Your task to perform on an android device: Open Amazon Image 0: 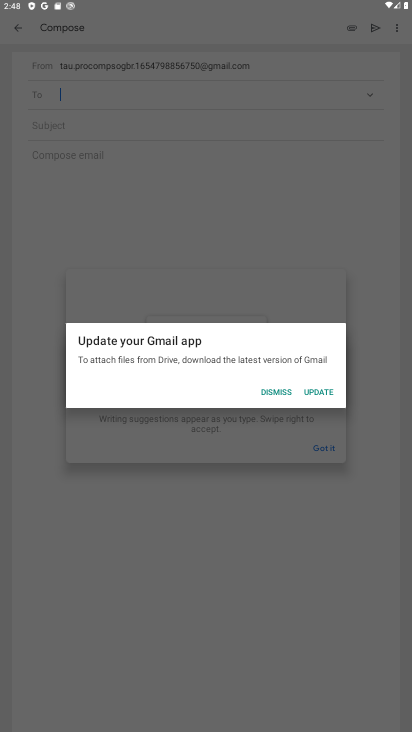
Step 0: press home button
Your task to perform on an android device: Open Amazon Image 1: 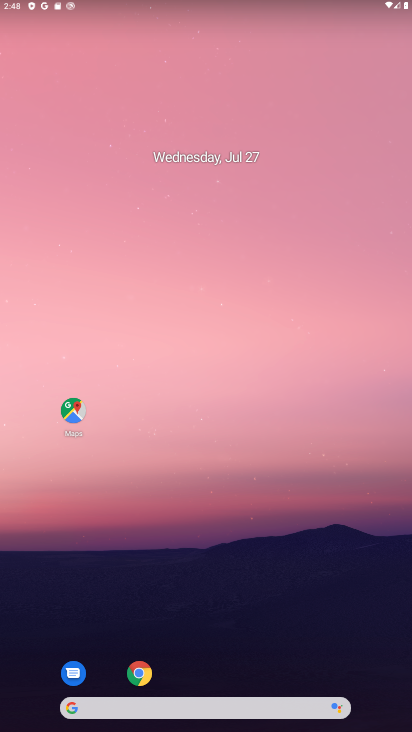
Step 1: click (140, 632)
Your task to perform on an android device: Open Amazon Image 2: 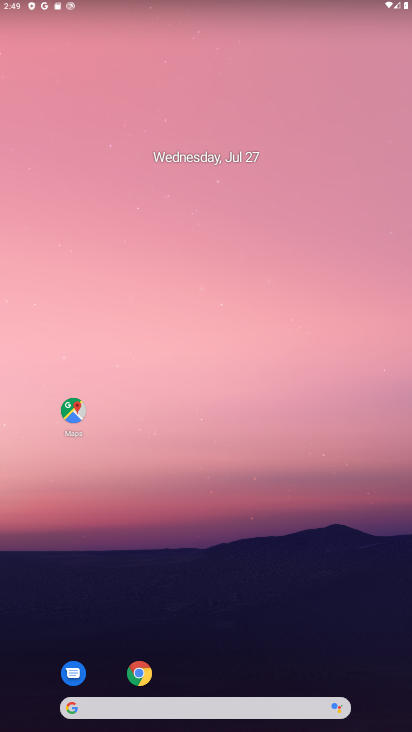
Step 2: click (149, 668)
Your task to perform on an android device: Open Amazon Image 3: 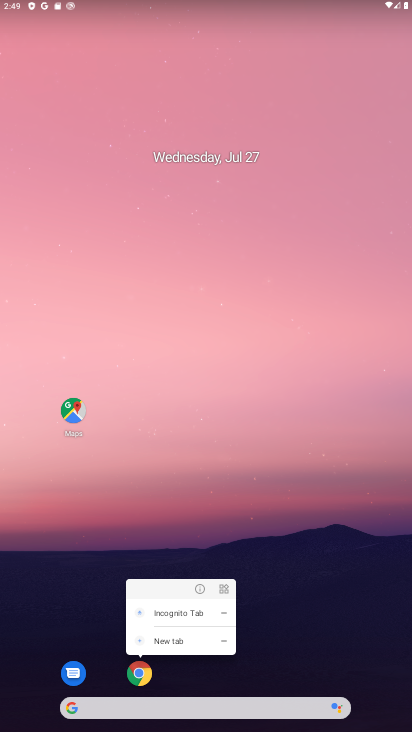
Step 3: click (134, 677)
Your task to perform on an android device: Open Amazon Image 4: 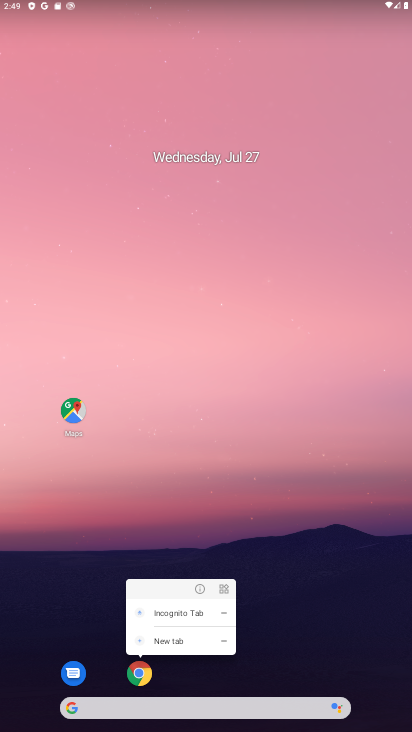
Step 4: click (134, 677)
Your task to perform on an android device: Open Amazon Image 5: 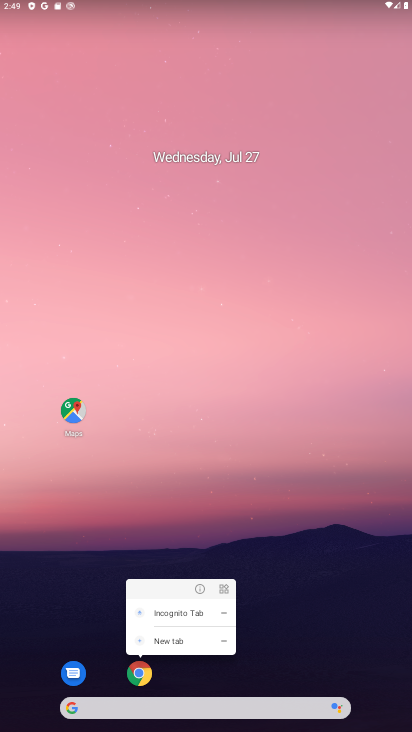
Step 5: click (134, 677)
Your task to perform on an android device: Open Amazon Image 6: 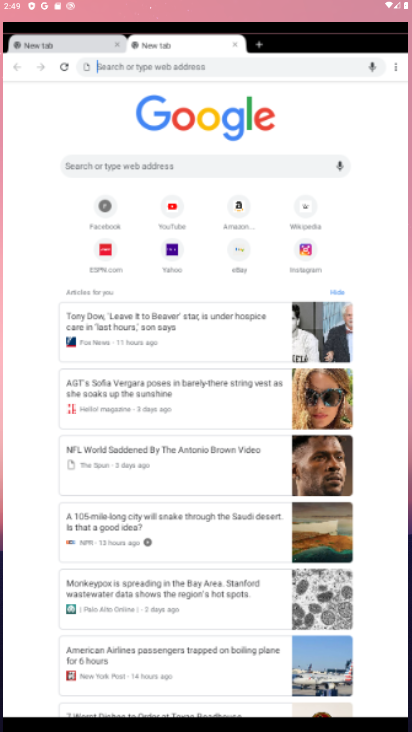
Step 6: click (134, 677)
Your task to perform on an android device: Open Amazon Image 7: 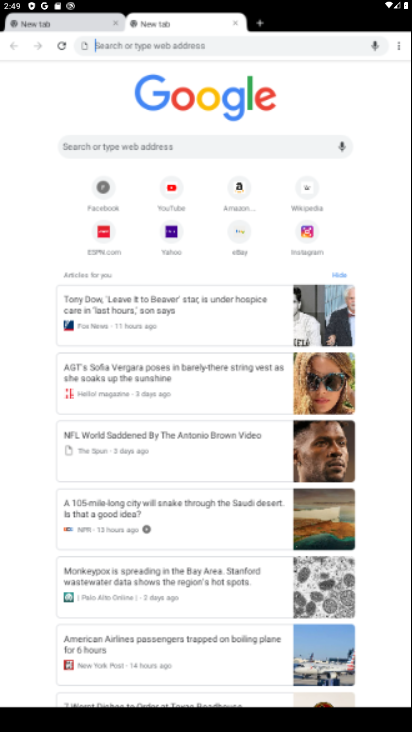
Step 7: click (134, 677)
Your task to perform on an android device: Open Amazon Image 8: 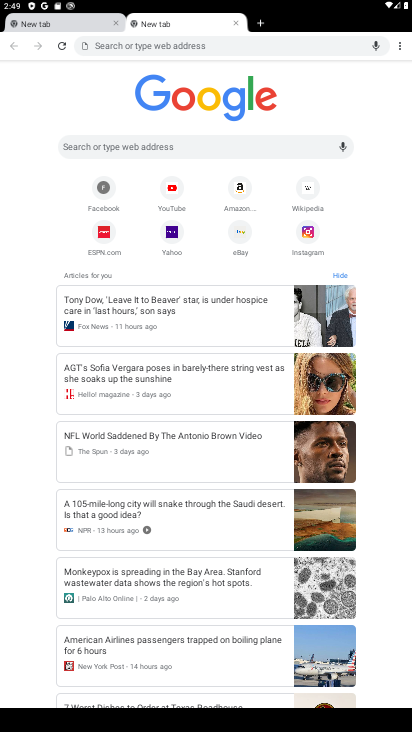
Step 8: click (242, 183)
Your task to perform on an android device: Open Amazon Image 9: 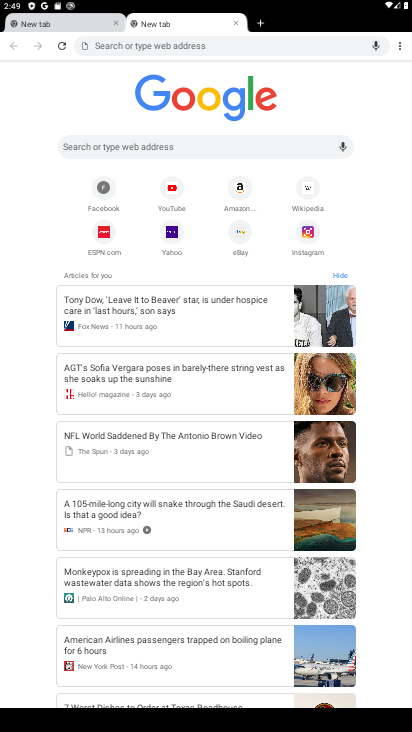
Step 9: click (242, 183)
Your task to perform on an android device: Open Amazon Image 10: 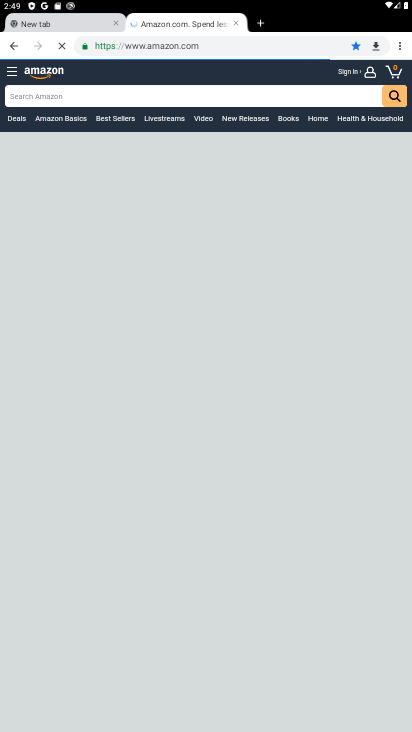
Step 10: task complete